Your task to perform on an android device: turn off smart reply in the gmail app Image 0: 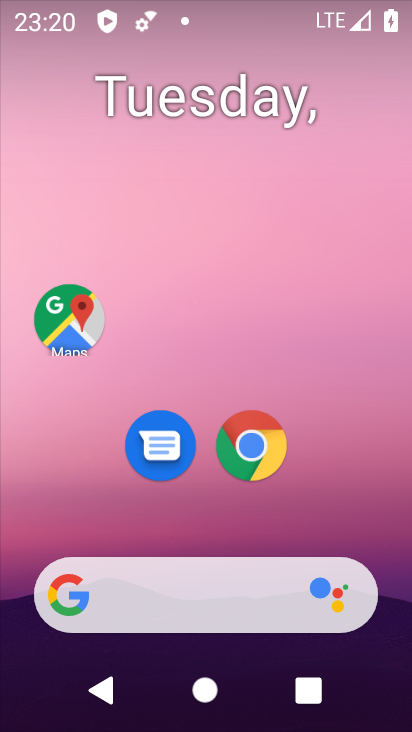
Step 0: drag from (338, 517) to (337, 0)
Your task to perform on an android device: turn off smart reply in the gmail app Image 1: 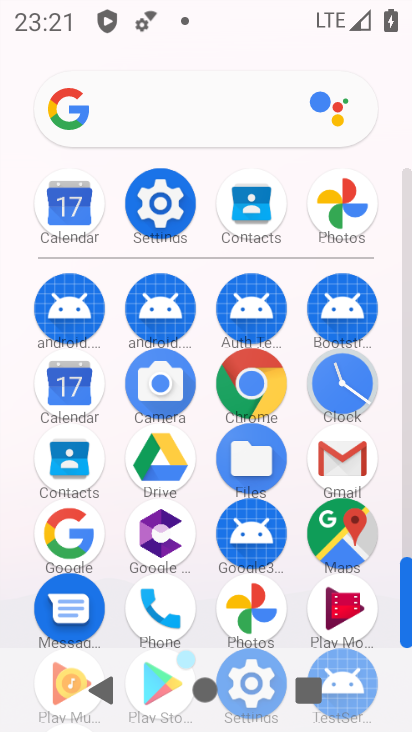
Step 1: click (348, 458)
Your task to perform on an android device: turn off smart reply in the gmail app Image 2: 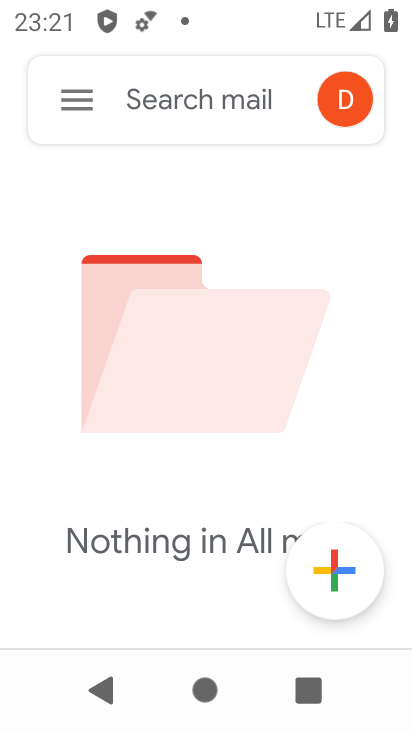
Step 2: click (64, 88)
Your task to perform on an android device: turn off smart reply in the gmail app Image 3: 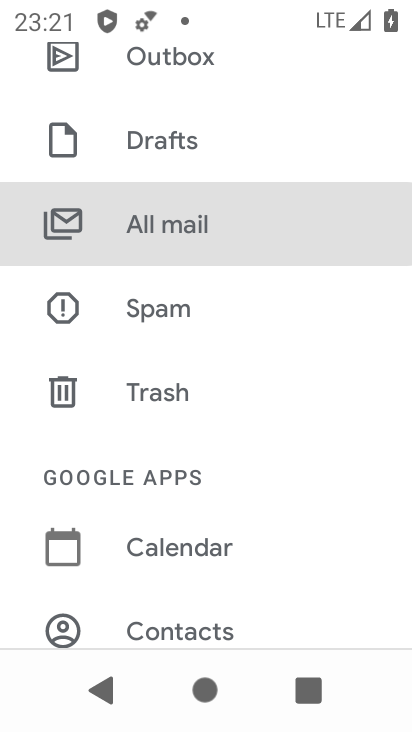
Step 3: drag from (136, 606) to (158, 181)
Your task to perform on an android device: turn off smart reply in the gmail app Image 4: 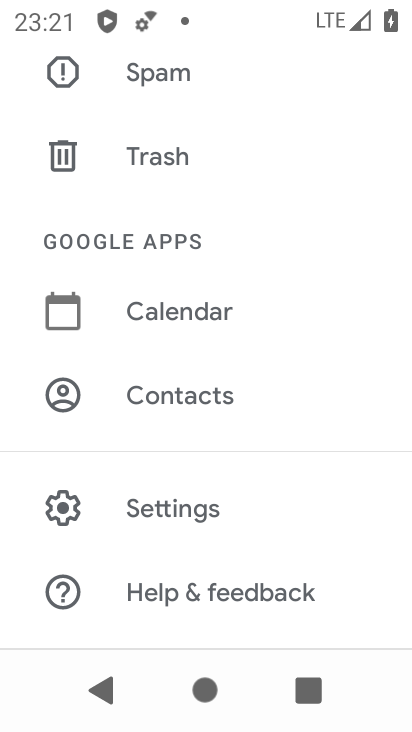
Step 4: click (220, 518)
Your task to perform on an android device: turn off smart reply in the gmail app Image 5: 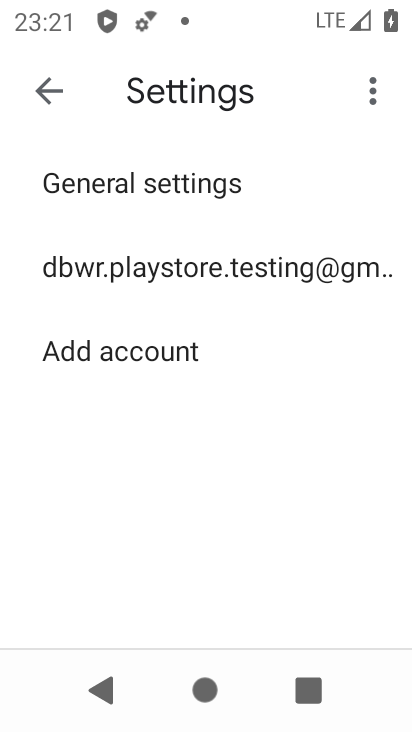
Step 5: click (219, 287)
Your task to perform on an android device: turn off smart reply in the gmail app Image 6: 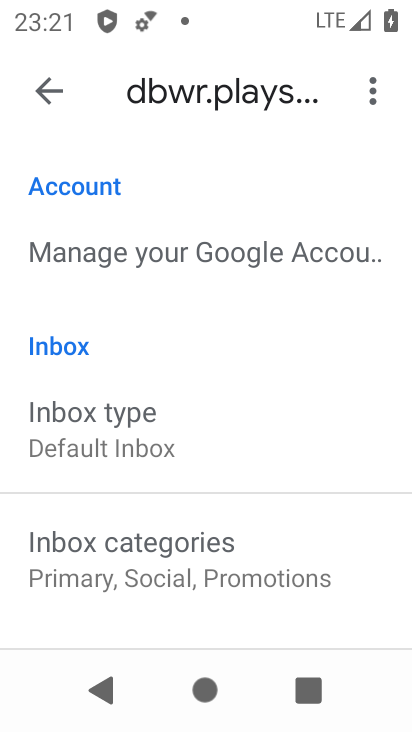
Step 6: drag from (243, 507) to (284, 223)
Your task to perform on an android device: turn off smart reply in the gmail app Image 7: 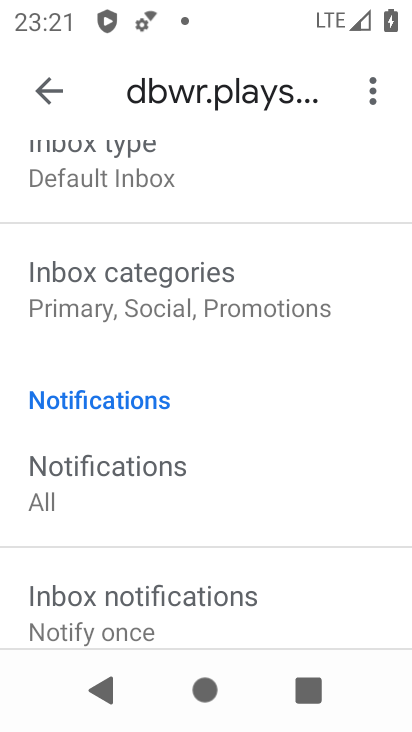
Step 7: drag from (248, 515) to (278, 248)
Your task to perform on an android device: turn off smart reply in the gmail app Image 8: 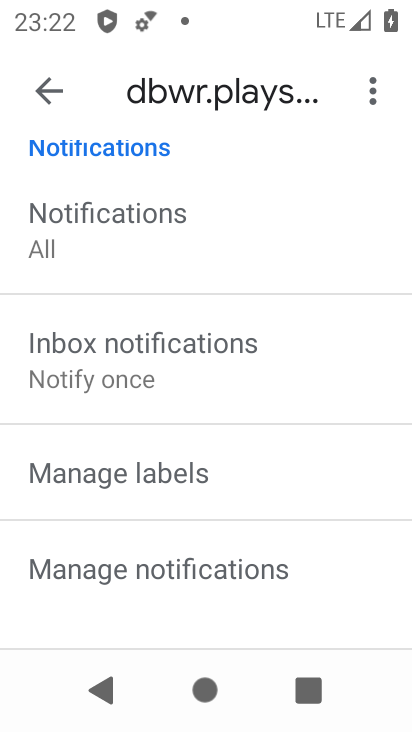
Step 8: drag from (177, 507) to (261, 268)
Your task to perform on an android device: turn off smart reply in the gmail app Image 9: 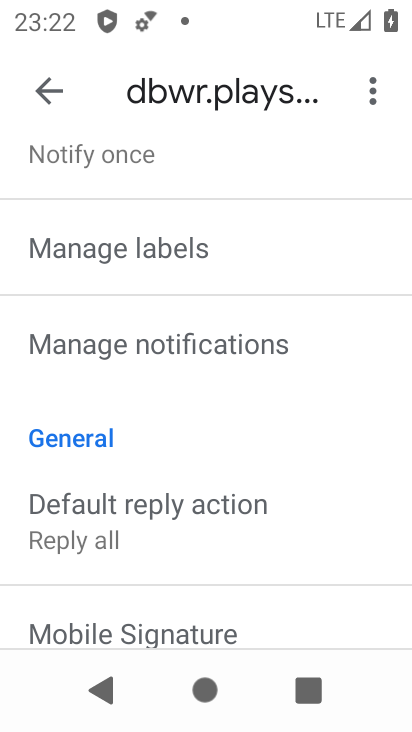
Step 9: drag from (198, 567) to (228, 318)
Your task to perform on an android device: turn off smart reply in the gmail app Image 10: 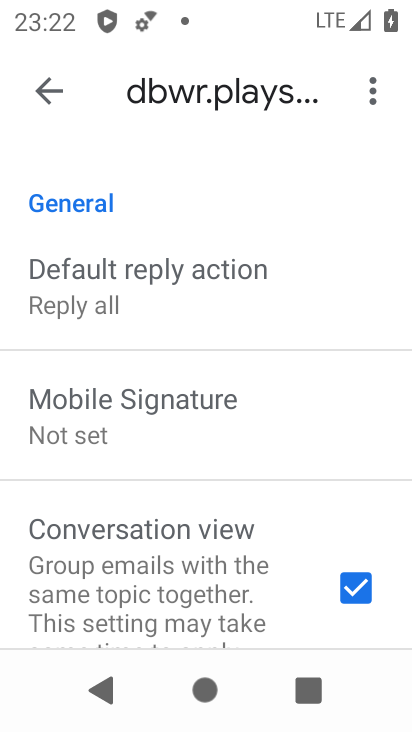
Step 10: drag from (191, 520) to (252, 246)
Your task to perform on an android device: turn off smart reply in the gmail app Image 11: 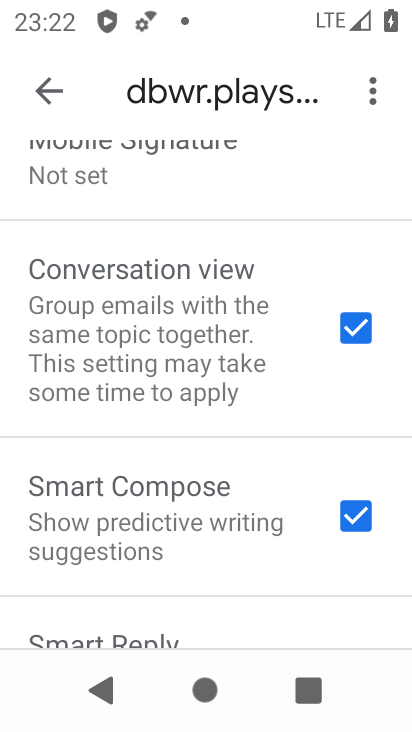
Step 11: drag from (186, 567) to (231, 334)
Your task to perform on an android device: turn off smart reply in the gmail app Image 12: 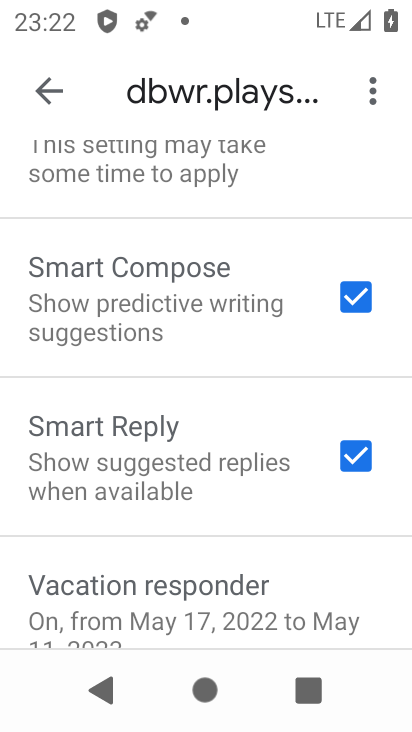
Step 12: click (339, 463)
Your task to perform on an android device: turn off smart reply in the gmail app Image 13: 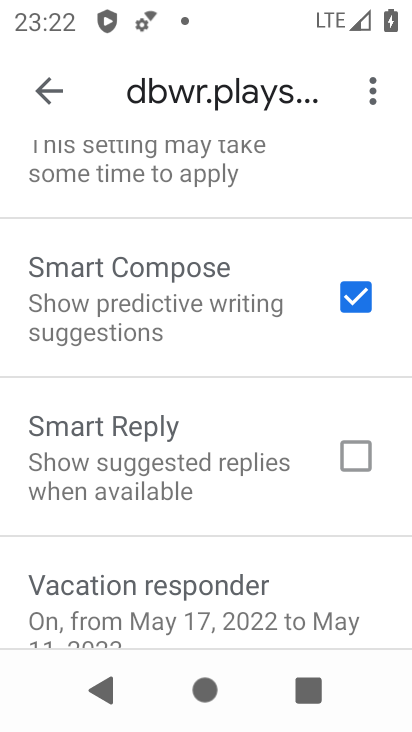
Step 13: task complete